Your task to perform on an android device: turn off javascript in the chrome app Image 0: 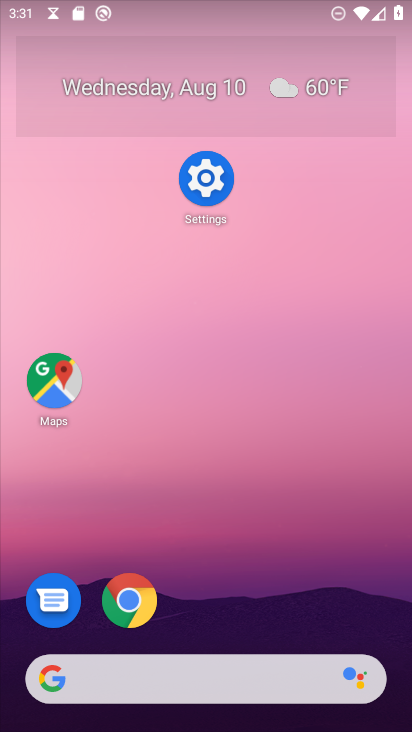
Step 0: press home button
Your task to perform on an android device: turn off javascript in the chrome app Image 1: 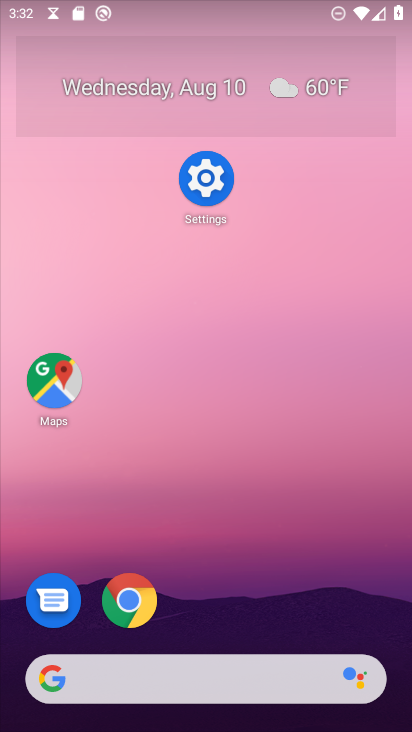
Step 1: click (135, 599)
Your task to perform on an android device: turn off javascript in the chrome app Image 2: 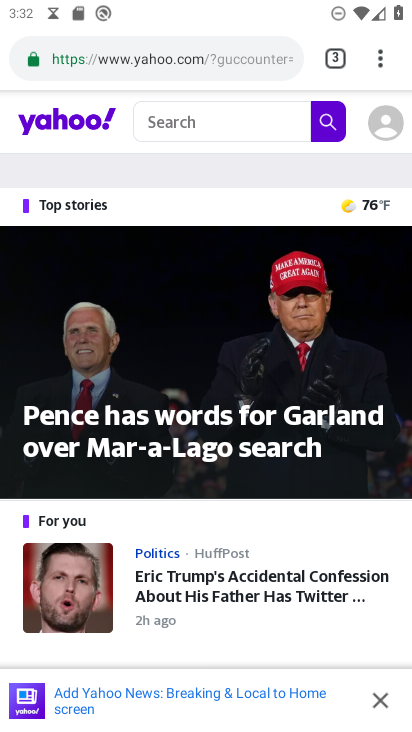
Step 2: drag from (377, 53) to (179, 630)
Your task to perform on an android device: turn off javascript in the chrome app Image 3: 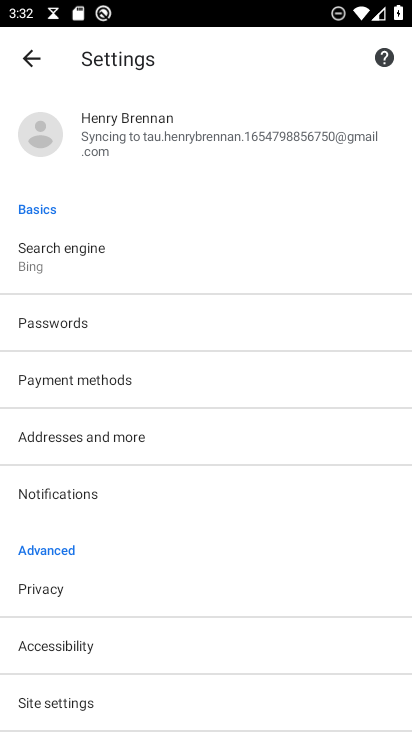
Step 3: click (63, 700)
Your task to perform on an android device: turn off javascript in the chrome app Image 4: 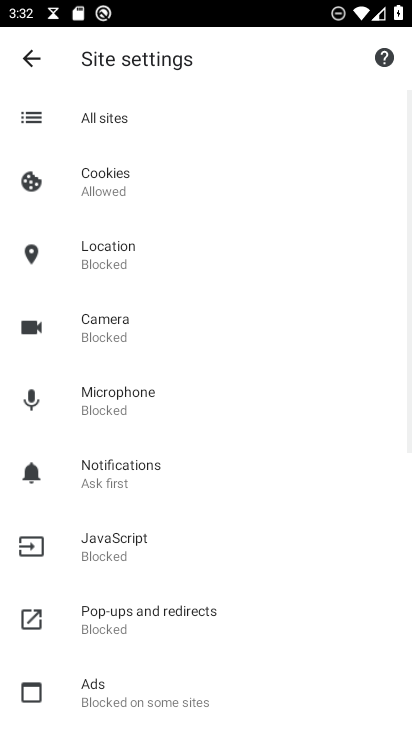
Step 4: click (123, 544)
Your task to perform on an android device: turn off javascript in the chrome app Image 5: 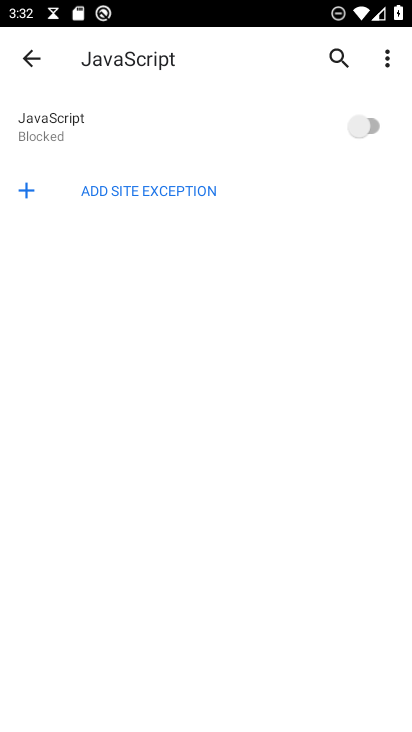
Step 5: task complete